Your task to perform on an android device: create a new album in the google photos Image 0: 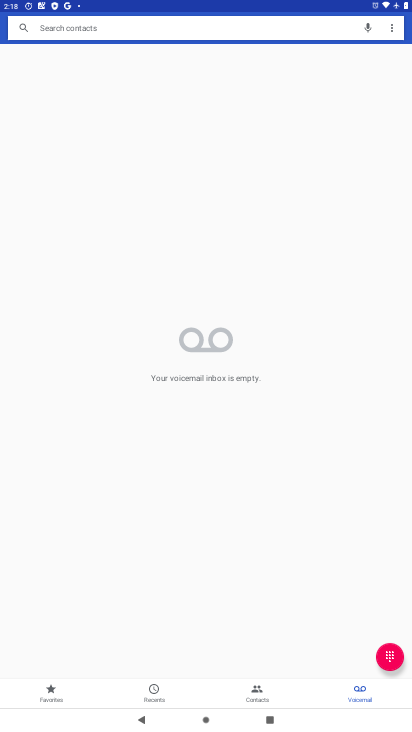
Step 0: press home button
Your task to perform on an android device: create a new album in the google photos Image 1: 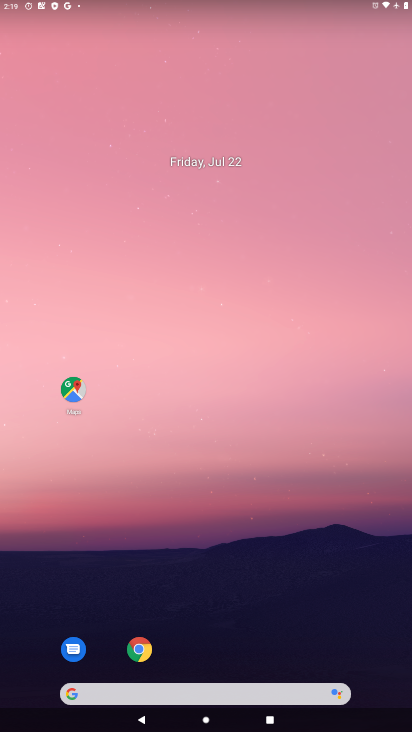
Step 1: drag from (335, 584) to (273, 71)
Your task to perform on an android device: create a new album in the google photos Image 2: 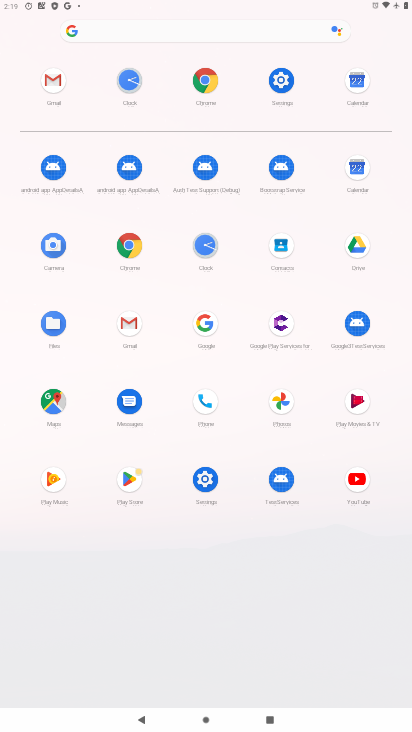
Step 2: click (279, 403)
Your task to perform on an android device: create a new album in the google photos Image 3: 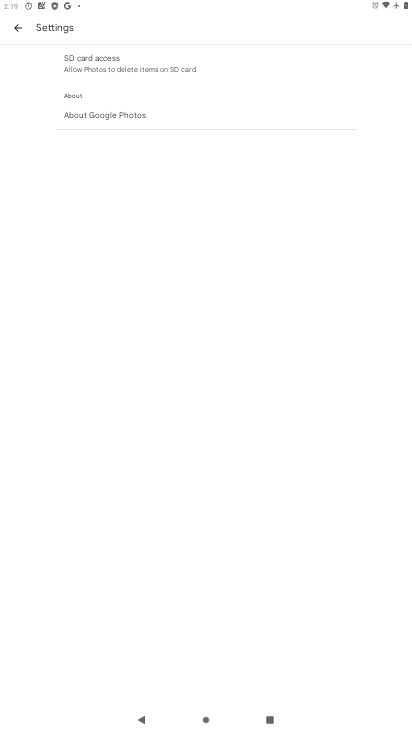
Step 3: click (22, 31)
Your task to perform on an android device: create a new album in the google photos Image 4: 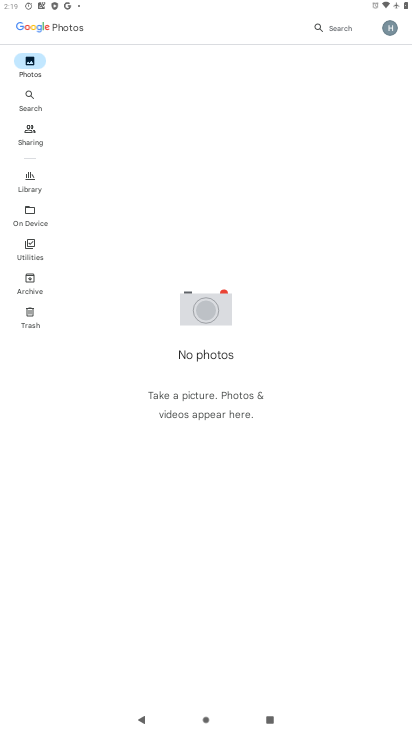
Step 4: click (26, 252)
Your task to perform on an android device: create a new album in the google photos Image 5: 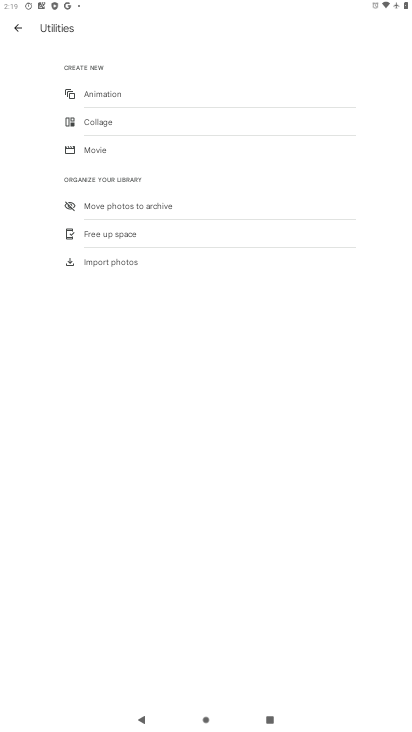
Step 5: click (92, 61)
Your task to perform on an android device: create a new album in the google photos Image 6: 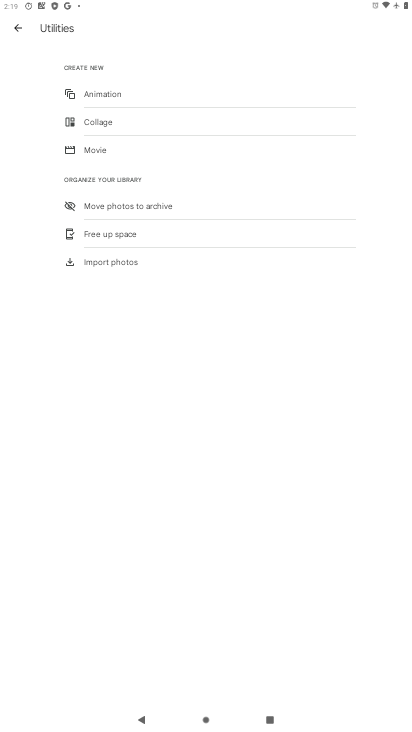
Step 6: click (11, 21)
Your task to perform on an android device: create a new album in the google photos Image 7: 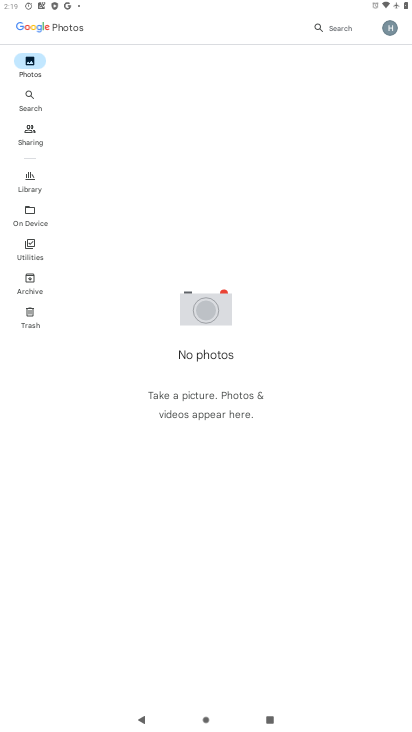
Step 7: click (25, 100)
Your task to perform on an android device: create a new album in the google photos Image 8: 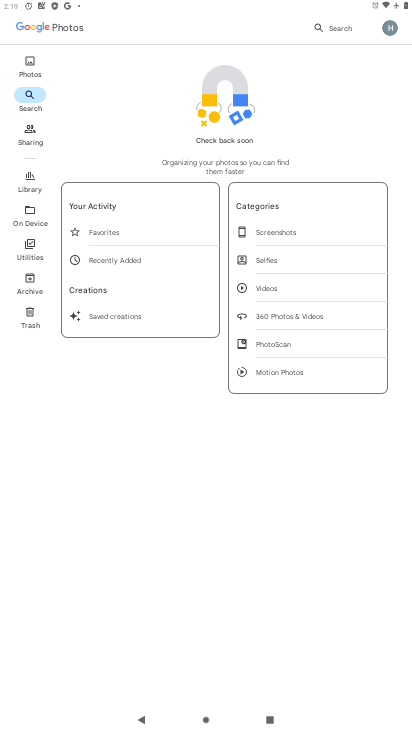
Step 8: click (27, 134)
Your task to perform on an android device: create a new album in the google photos Image 9: 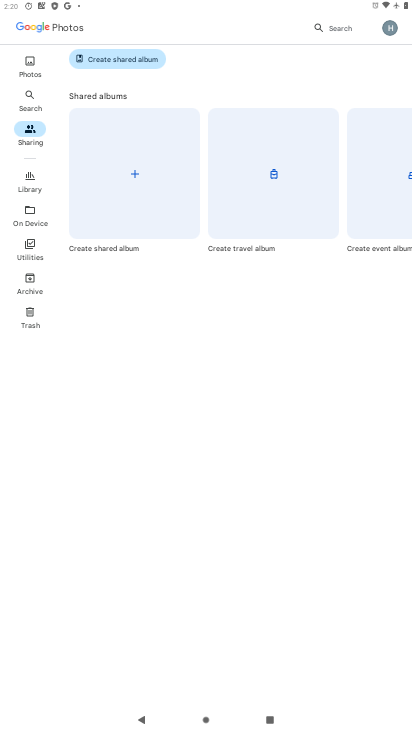
Step 9: click (36, 182)
Your task to perform on an android device: create a new album in the google photos Image 10: 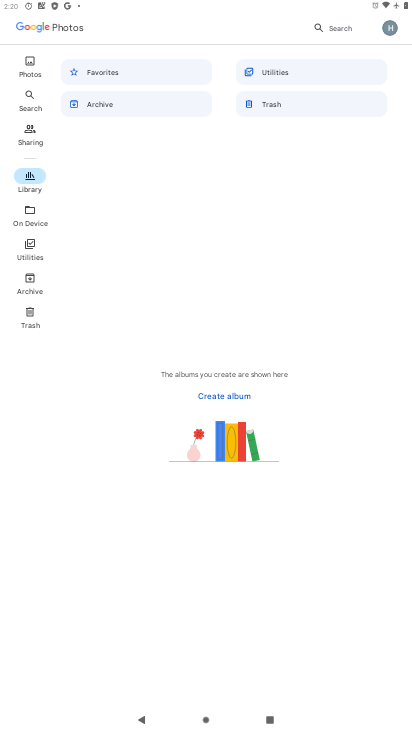
Step 10: click (216, 396)
Your task to perform on an android device: create a new album in the google photos Image 11: 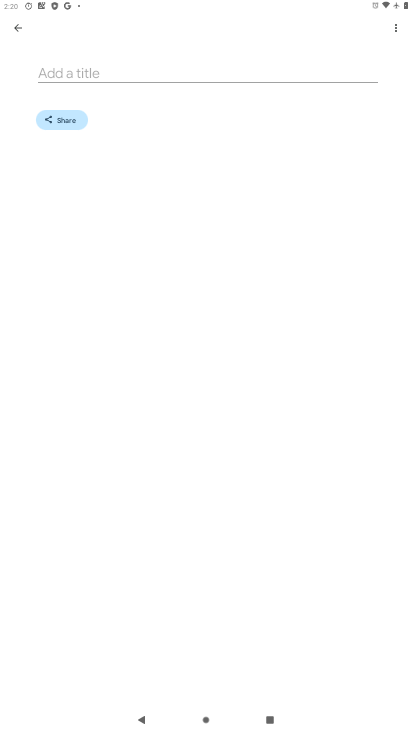
Step 11: click (167, 67)
Your task to perform on an android device: create a new album in the google photos Image 12: 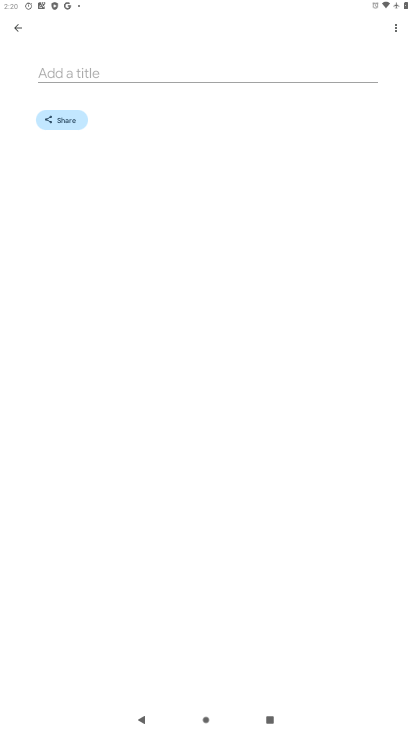
Step 12: click (202, 67)
Your task to perform on an android device: create a new album in the google photos Image 13: 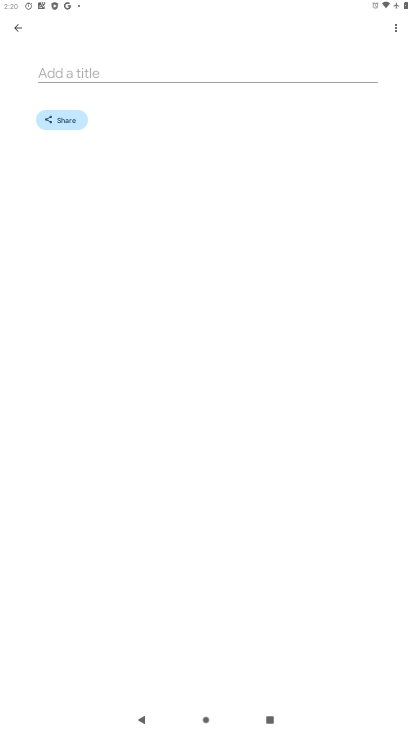
Step 13: click (202, 67)
Your task to perform on an android device: create a new album in the google photos Image 14: 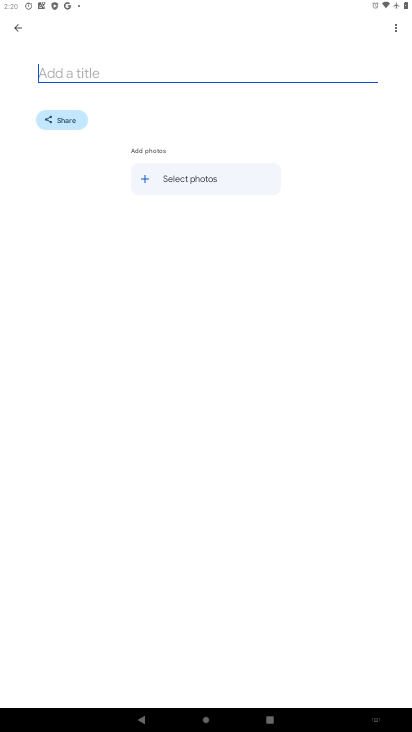
Step 14: type "hopoo"
Your task to perform on an android device: create a new album in the google photos Image 15: 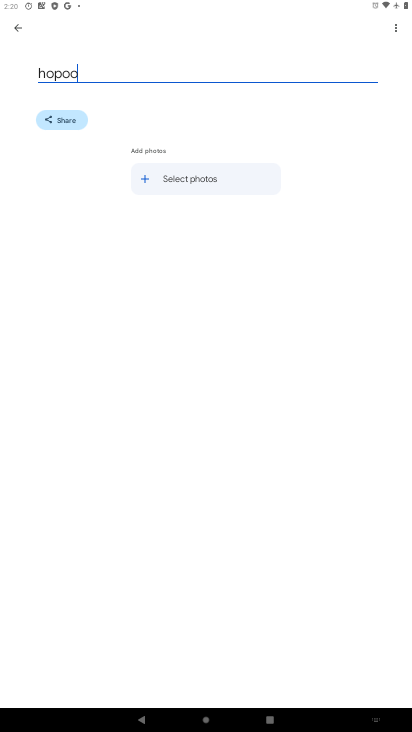
Step 15: click (398, 18)
Your task to perform on an android device: create a new album in the google photos Image 16: 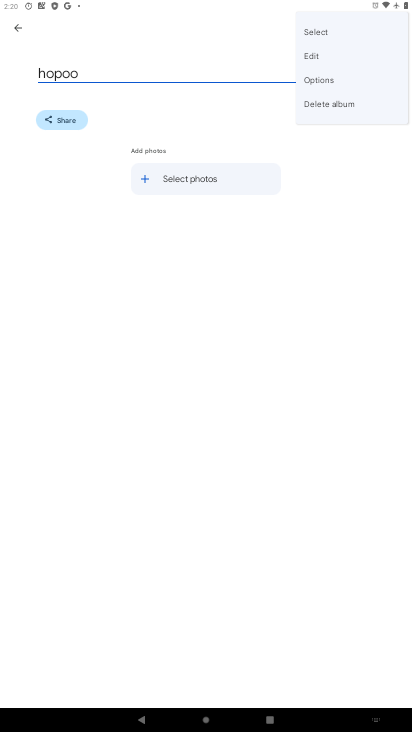
Step 16: click (328, 82)
Your task to perform on an android device: create a new album in the google photos Image 17: 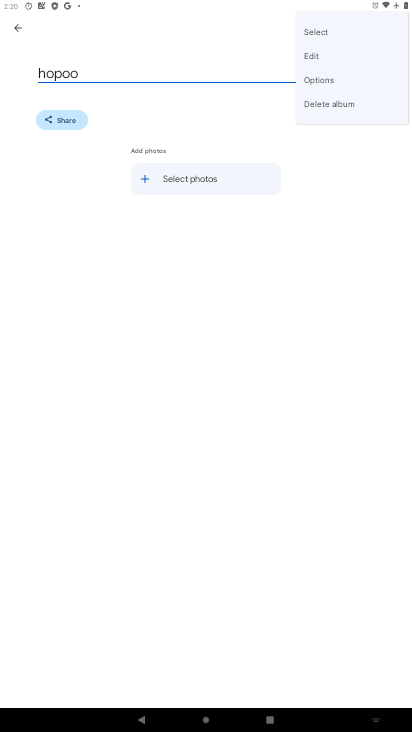
Step 17: click (327, 78)
Your task to perform on an android device: create a new album in the google photos Image 18: 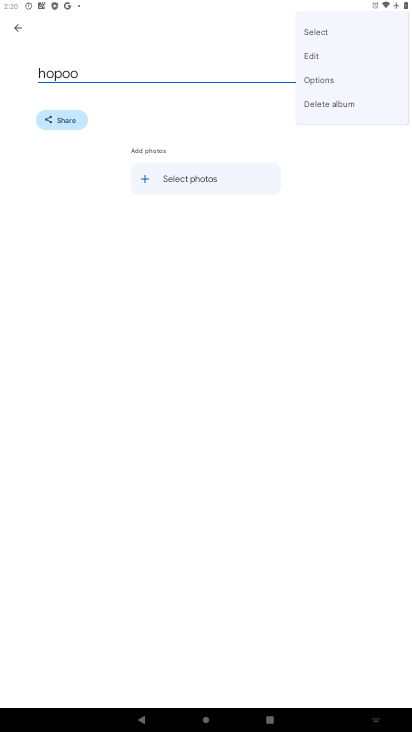
Step 18: click (324, 73)
Your task to perform on an android device: create a new album in the google photos Image 19: 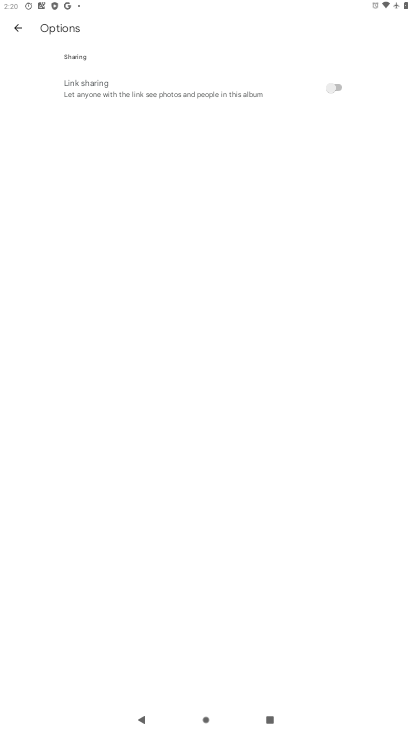
Step 19: task complete